Your task to perform on an android device: search for starred emails in the gmail app Image 0: 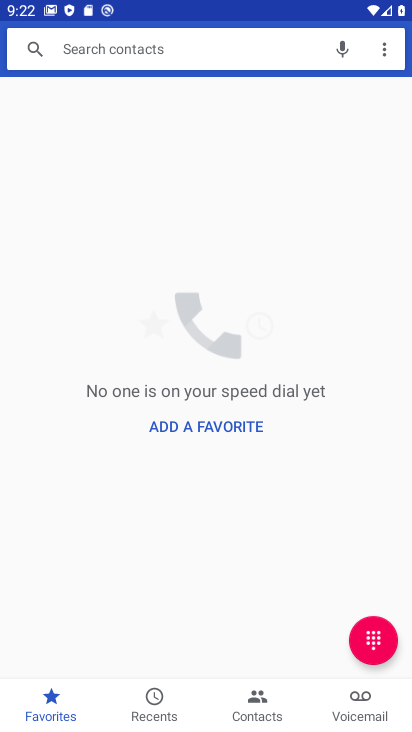
Step 0: press home button
Your task to perform on an android device: search for starred emails in the gmail app Image 1: 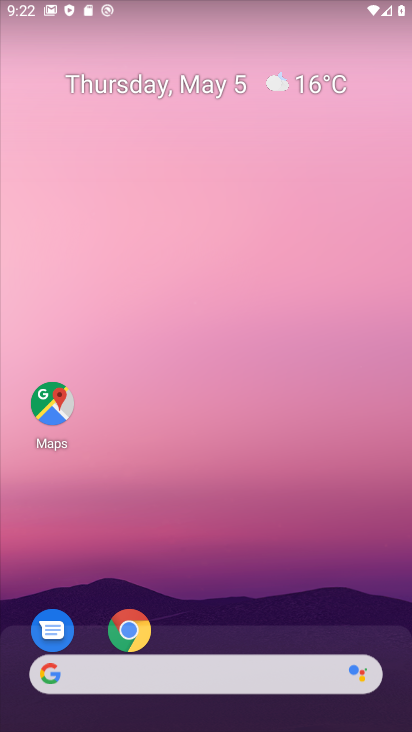
Step 1: drag from (241, 587) to (258, 164)
Your task to perform on an android device: search for starred emails in the gmail app Image 2: 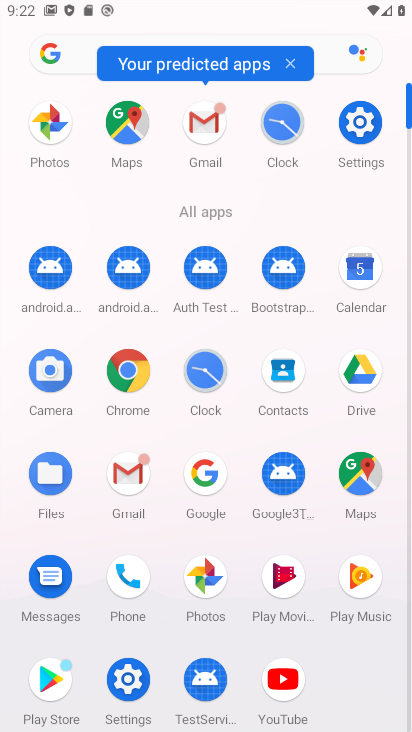
Step 2: click (207, 129)
Your task to perform on an android device: search for starred emails in the gmail app Image 3: 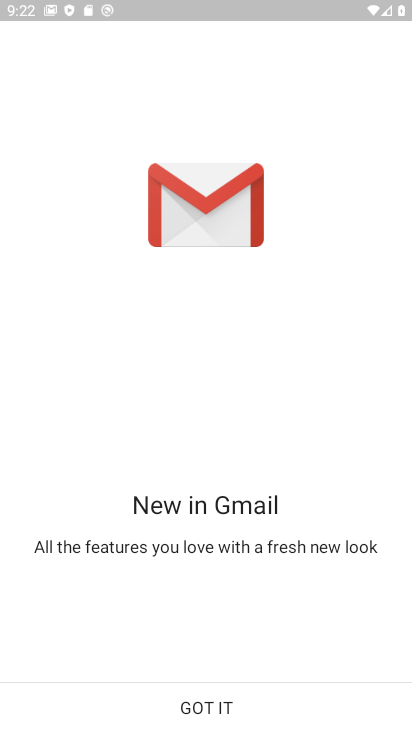
Step 3: click (259, 714)
Your task to perform on an android device: search for starred emails in the gmail app Image 4: 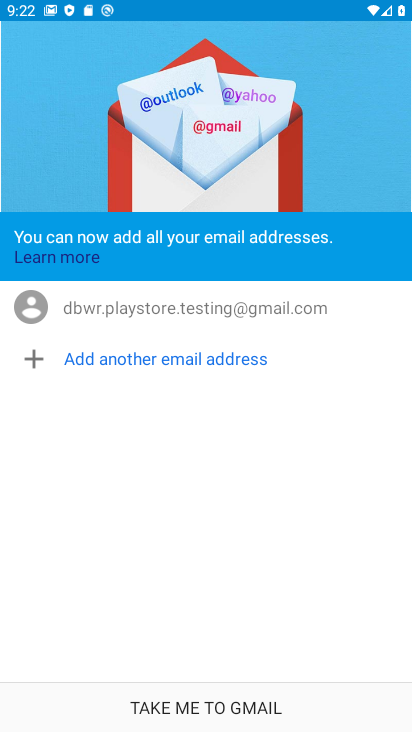
Step 4: click (258, 713)
Your task to perform on an android device: search for starred emails in the gmail app Image 5: 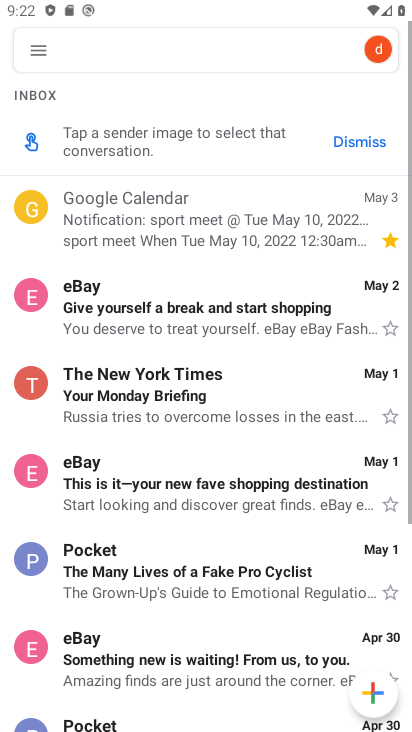
Step 5: click (36, 51)
Your task to perform on an android device: search for starred emails in the gmail app Image 6: 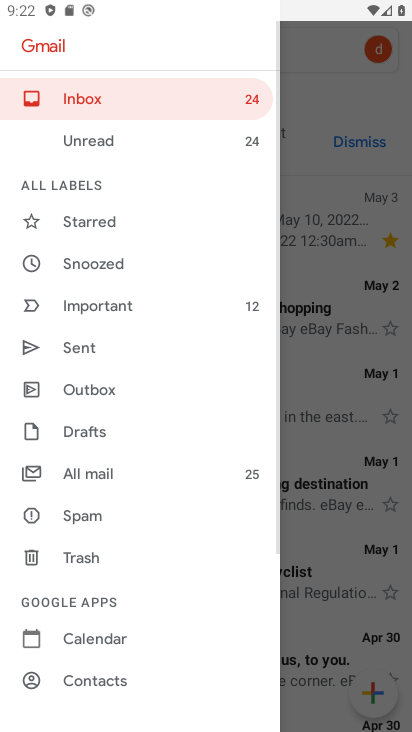
Step 6: click (112, 218)
Your task to perform on an android device: search for starred emails in the gmail app Image 7: 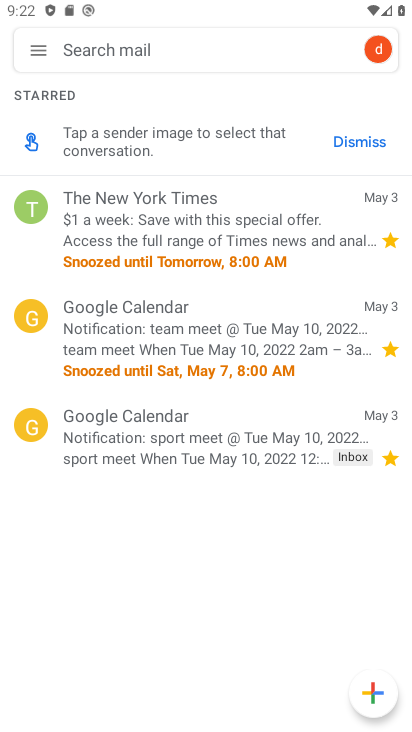
Step 7: task complete